Your task to perform on an android device: Do I have any events this weekend? Image 0: 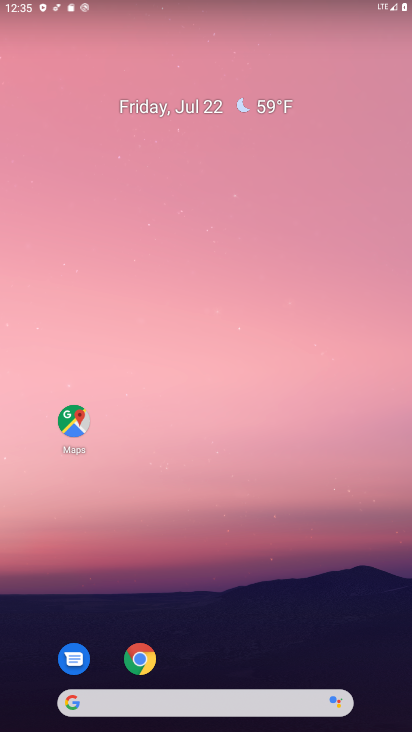
Step 0: drag from (185, 661) to (145, 278)
Your task to perform on an android device: Do I have any events this weekend? Image 1: 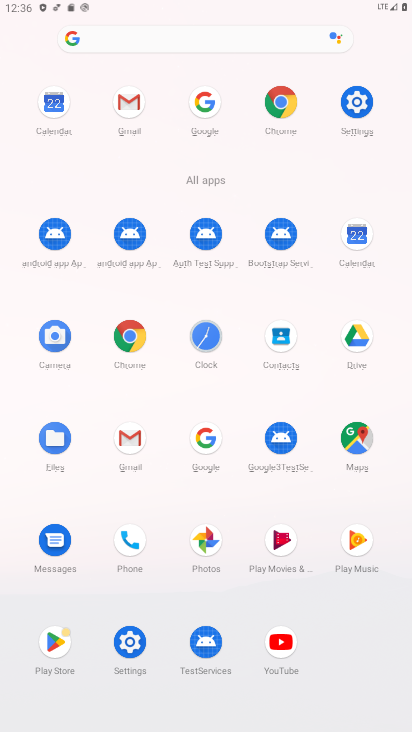
Step 1: click (369, 244)
Your task to perform on an android device: Do I have any events this weekend? Image 2: 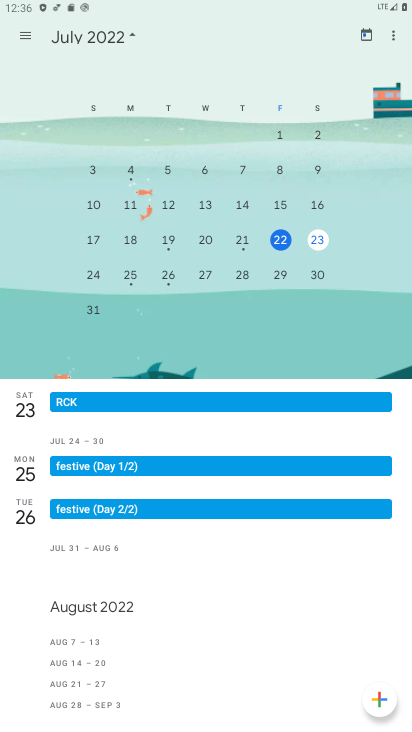
Step 2: task complete